Your task to perform on an android device: set the timer Image 0: 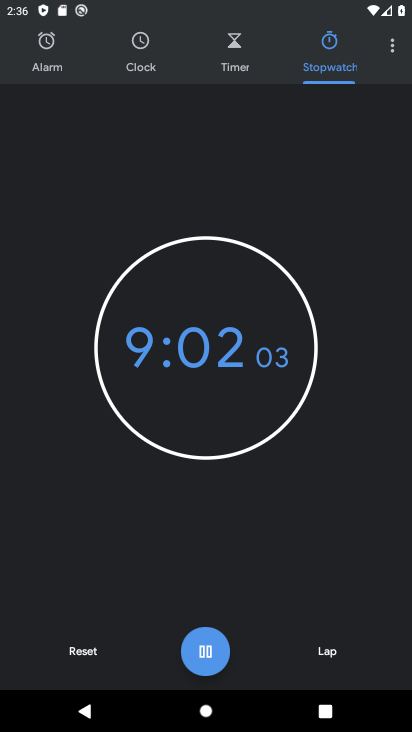
Step 0: click (223, 61)
Your task to perform on an android device: set the timer Image 1: 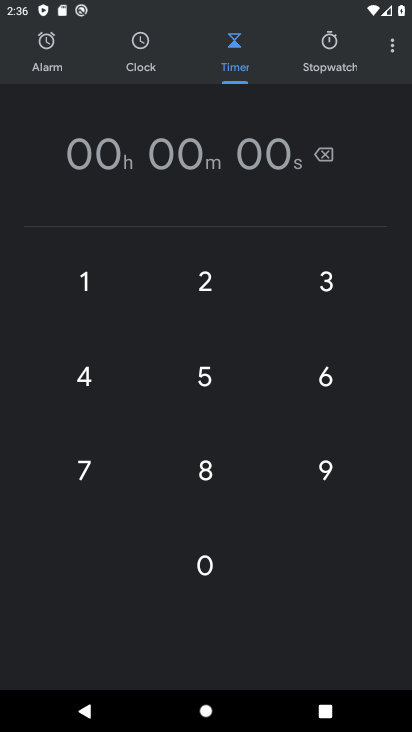
Step 1: click (207, 297)
Your task to perform on an android device: set the timer Image 2: 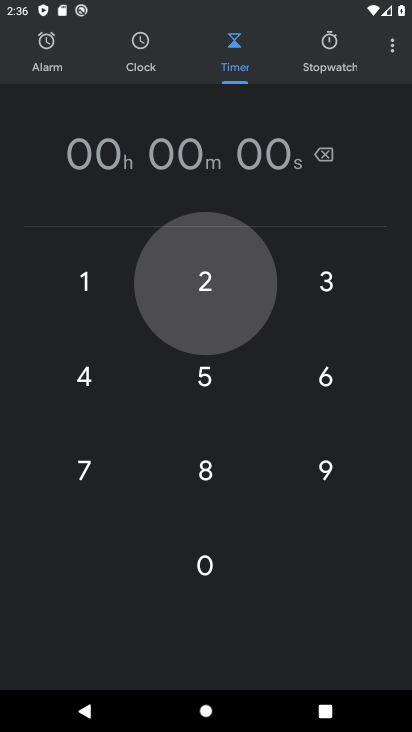
Step 2: click (215, 338)
Your task to perform on an android device: set the timer Image 3: 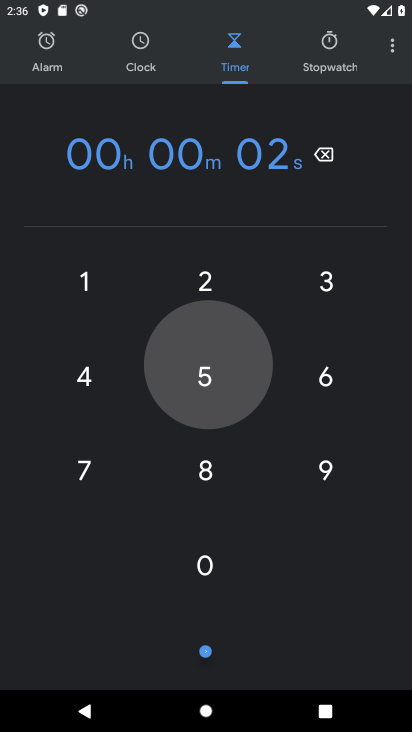
Step 3: click (195, 266)
Your task to perform on an android device: set the timer Image 4: 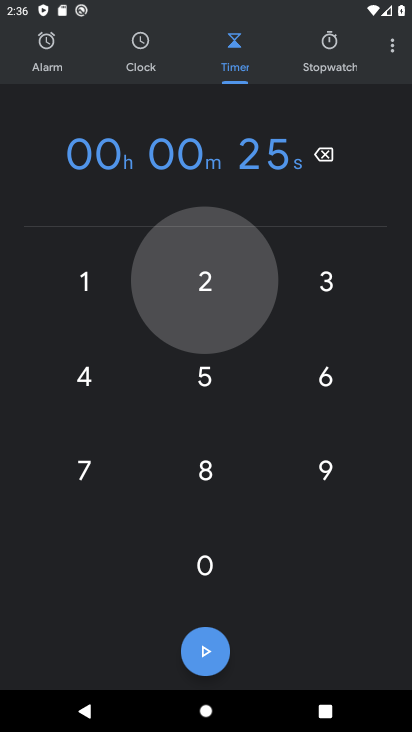
Step 4: click (205, 347)
Your task to perform on an android device: set the timer Image 5: 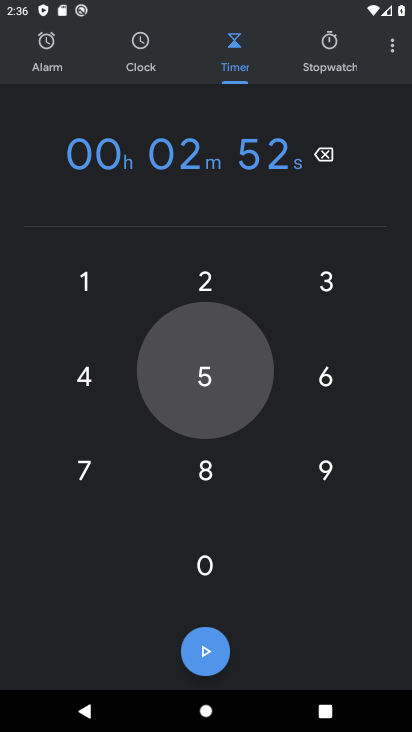
Step 5: click (197, 280)
Your task to perform on an android device: set the timer Image 6: 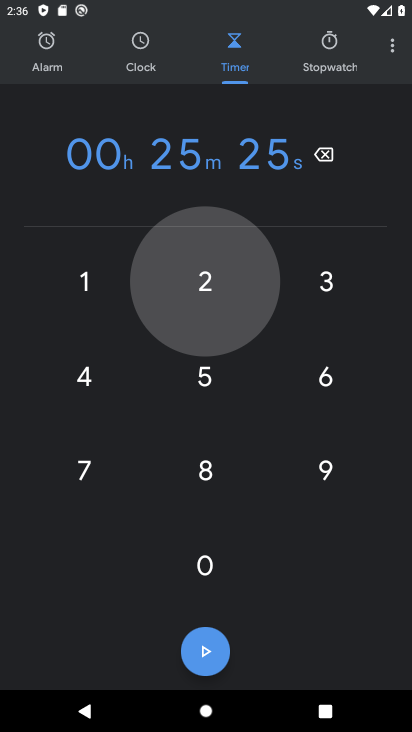
Step 6: click (201, 366)
Your task to perform on an android device: set the timer Image 7: 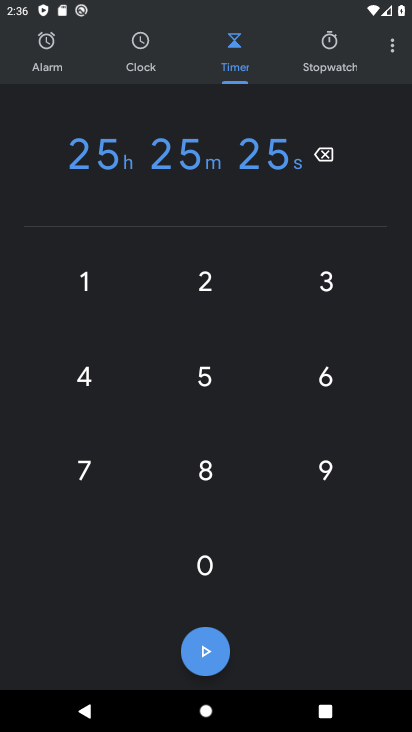
Step 7: click (217, 666)
Your task to perform on an android device: set the timer Image 8: 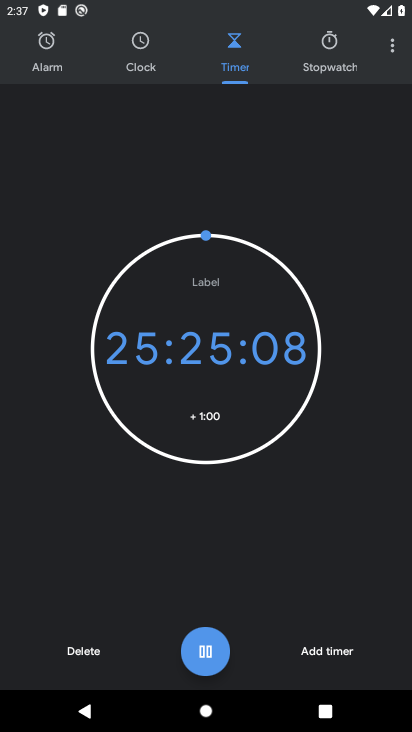
Step 8: task complete